Your task to perform on an android device: turn on improve location accuracy Image 0: 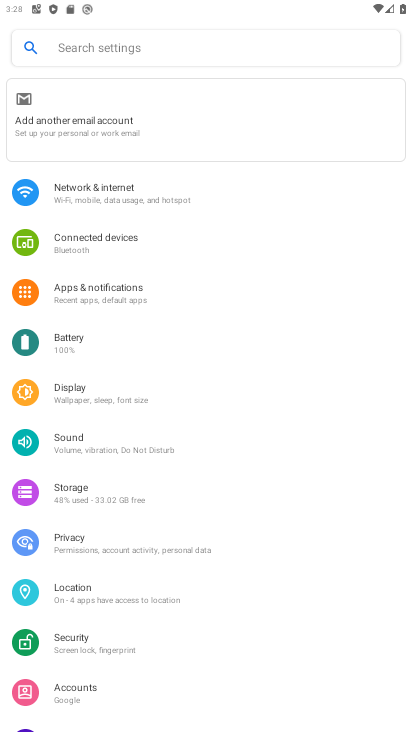
Step 0: click (84, 597)
Your task to perform on an android device: turn on improve location accuracy Image 1: 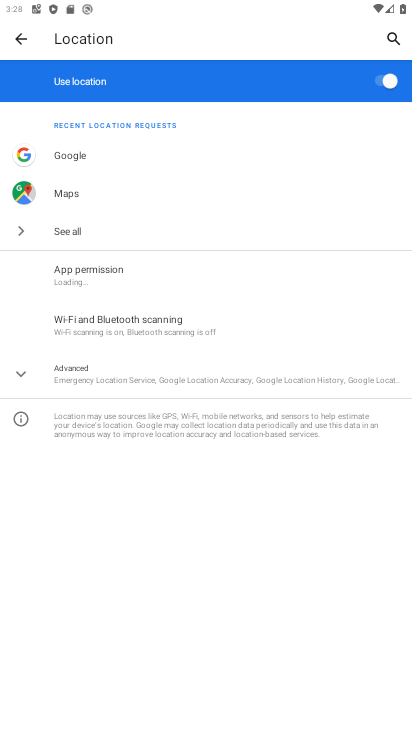
Step 1: drag from (129, 614) to (91, 449)
Your task to perform on an android device: turn on improve location accuracy Image 2: 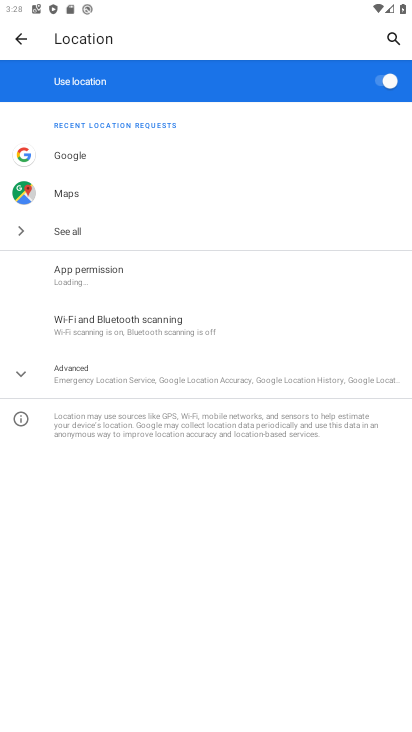
Step 2: click (82, 359)
Your task to perform on an android device: turn on improve location accuracy Image 3: 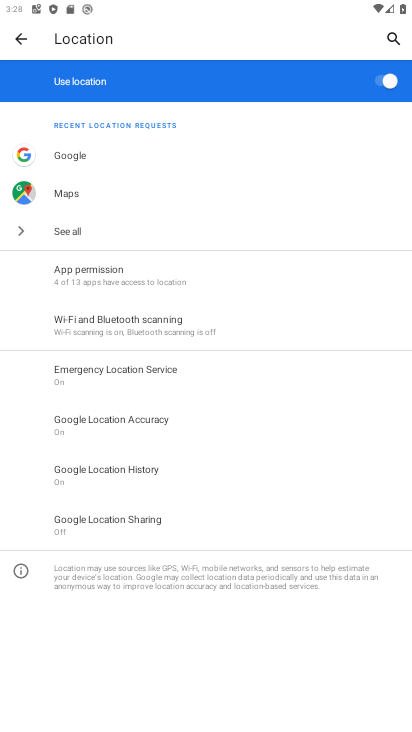
Step 3: click (122, 416)
Your task to perform on an android device: turn on improve location accuracy Image 4: 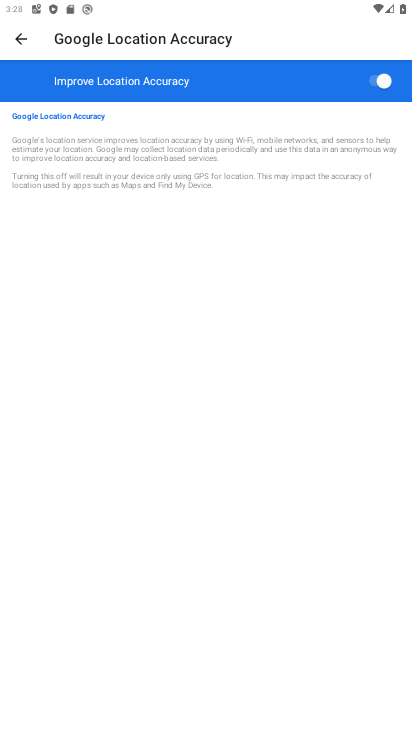
Step 4: task complete